Your task to perform on an android device: stop showing notifications on the lock screen Image 0: 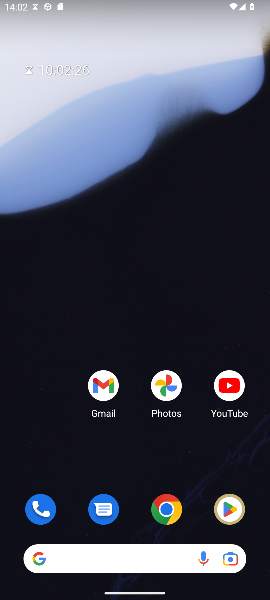
Step 0: press home button
Your task to perform on an android device: stop showing notifications on the lock screen Image 1: 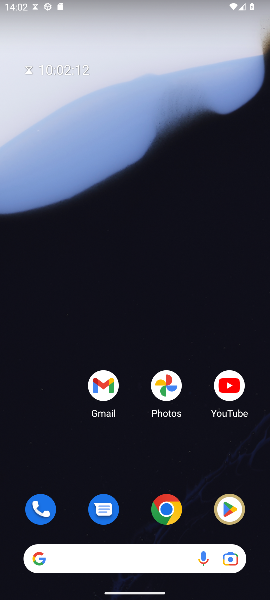
Step 1: drag from (155, 486) to (160, 66)
Your task to perform on an android device: stop showing notifications on the lock screen Image 2: 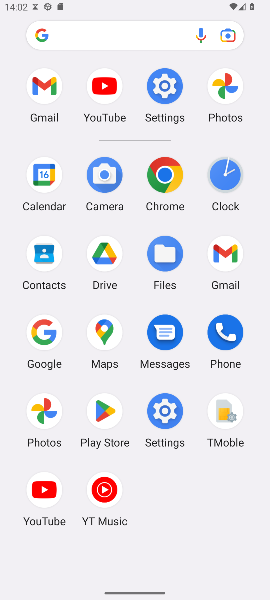
Step 2: click (163, 85)
Your task to perform on an android device: stop showing notifications on the lock screen Image 3: 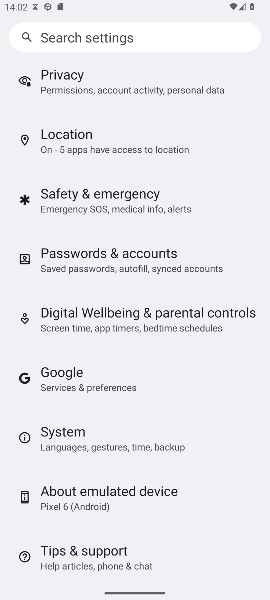
Step 3: drag from (213, 532) to (164, 590)
Your task to perform on an android device: stop showing notifications on the lock screen Image 4: 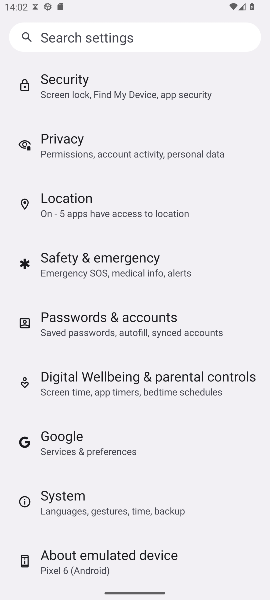
Step 4: drag from (182, 124) to (157, 574)
Your task to perform on an android device: stop showing notifications on the lock screen Image 5: 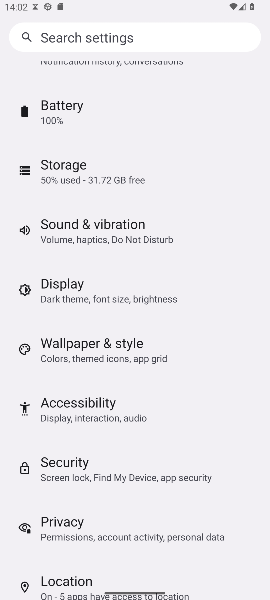
Step 5: drag from (169, 146) to (162, 515)
Your task to perform on an android device: stop showing notifications on the lock screen Image 6: 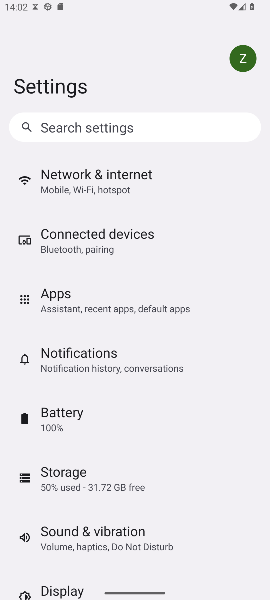
Step 6: click (56, 359)
Your task to perform on an android device: stop showing notifications on the lock screen Image 7: 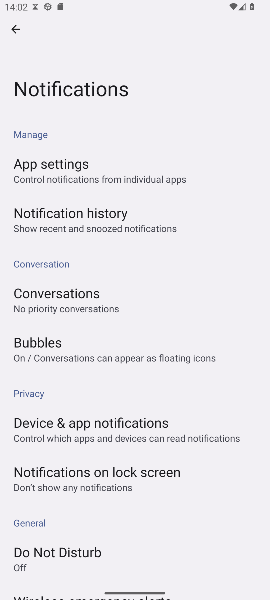
Step 7: drag from (157, 502) to (171, 340)
Your task to perform on an android device: stop showing notifications on the lock screen Image 8: 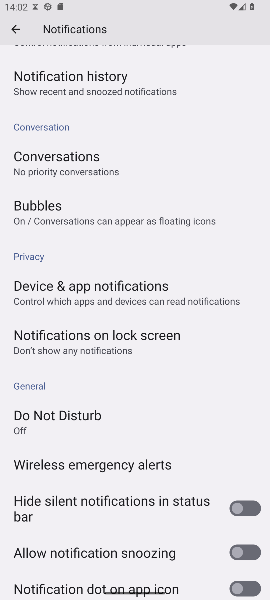
Step 8: click (74, 338)
Your task to perform on an android device: stop showing notifications on the lock screen Image 9: 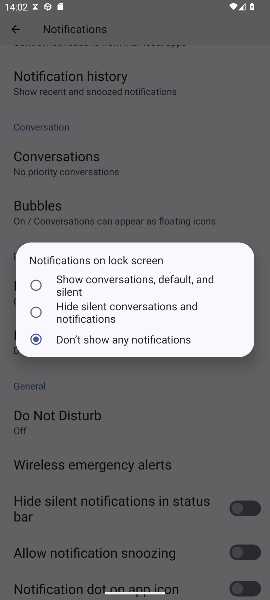
Step 9: task complete